Your task to perform on an android device: Open Wikipedia Image 0: 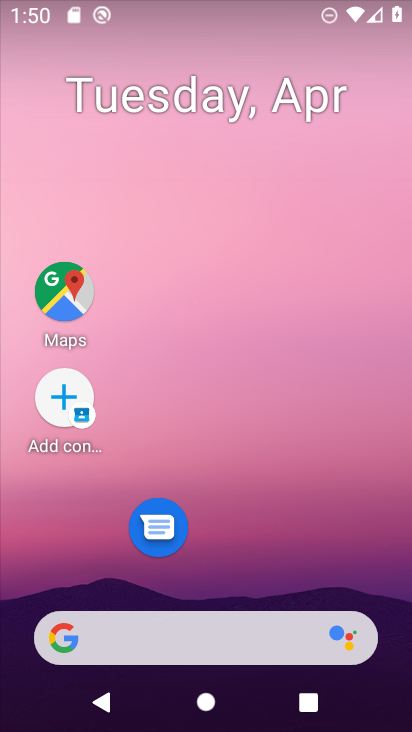
Step 0: drag from (249, 572) to (257, 129)
Your task to perform on an android device: Open Wikipedia Image 1: 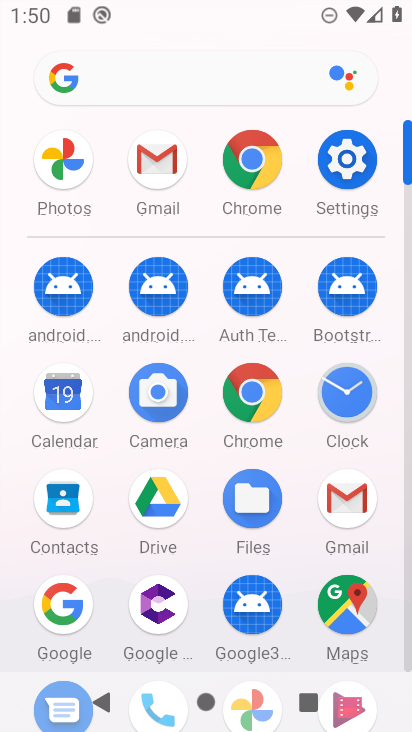
Step 1: click (248, 156)
Your task to perform on an android device: Open Wikipedia Image 2: 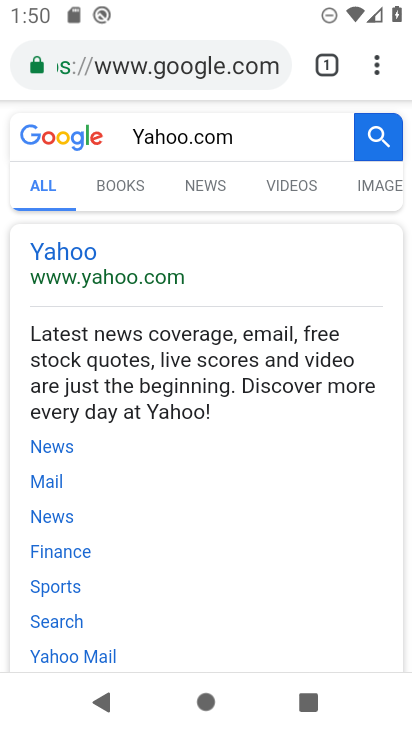
Step 2: click (256, 59)
Your task to perform on an android device: Open Wikipedia Image 3: 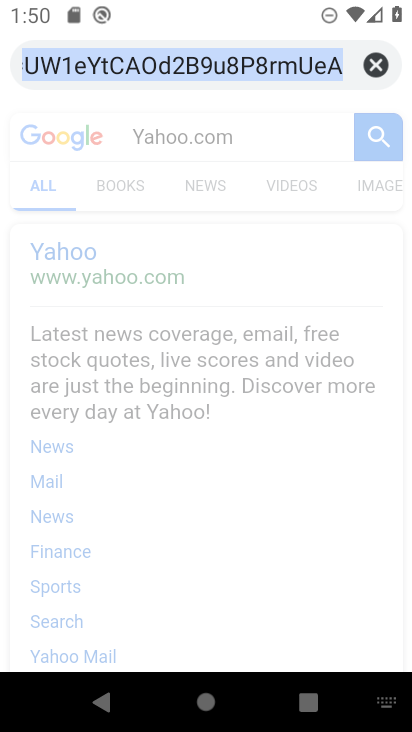
Step 3: click (370, 68)
Your task to perform on an android device: Open Wikipedia Image 4: 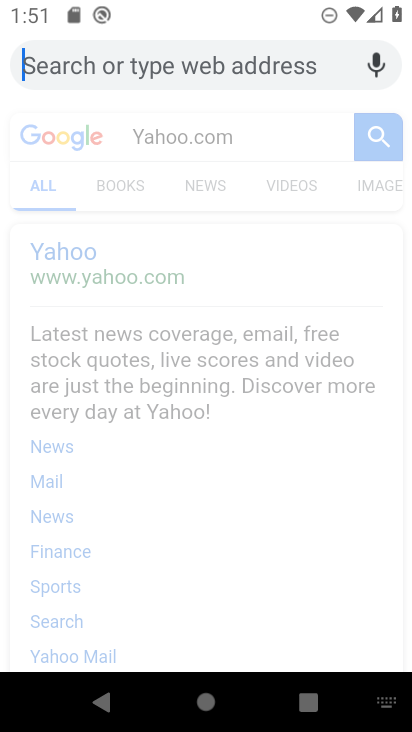
Step 4: type "Wikipedia"
Your task to perform on an android device: Open Wikipedia Image 5: 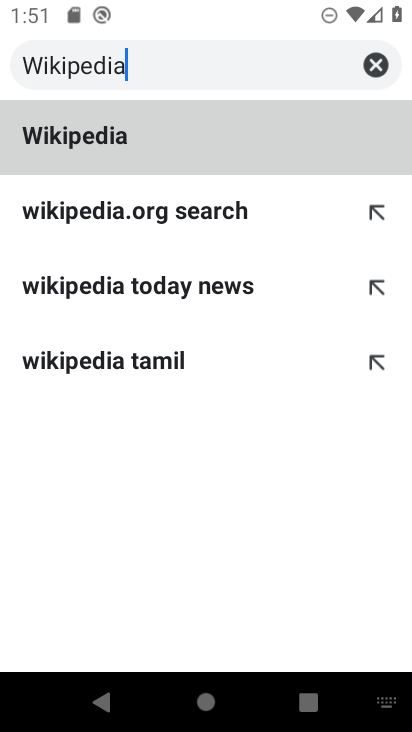
Step 5: click (129, 142)
Your task to perform on an android device: Open Wikipedia Image 6: 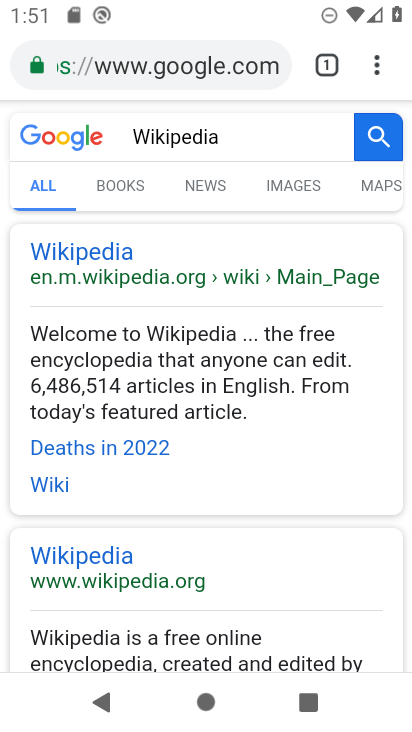
Step 6: task complete